Your task to perform on an android device: Go to display settings Image 0: 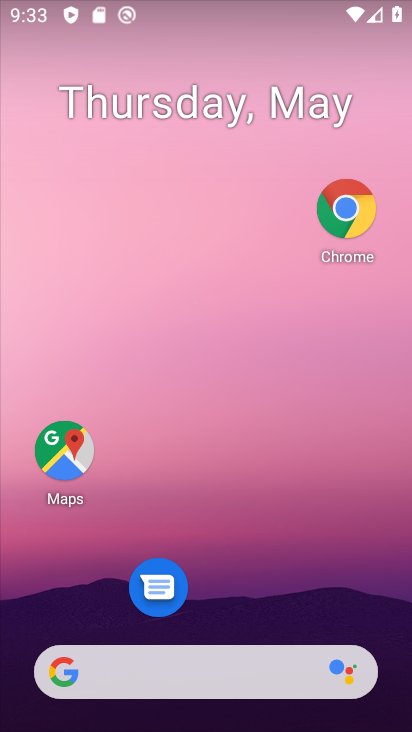
Step 0: drag from (233, 598) to (264, 45)
Your task to perform on an android device: Go to display settings Image 1: 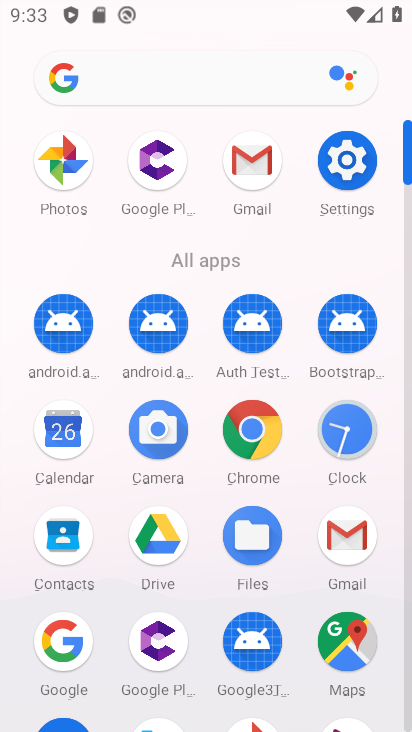
Step 1: click (351, 183)
Your task to perform on an android device: Go to display settings Image 2: 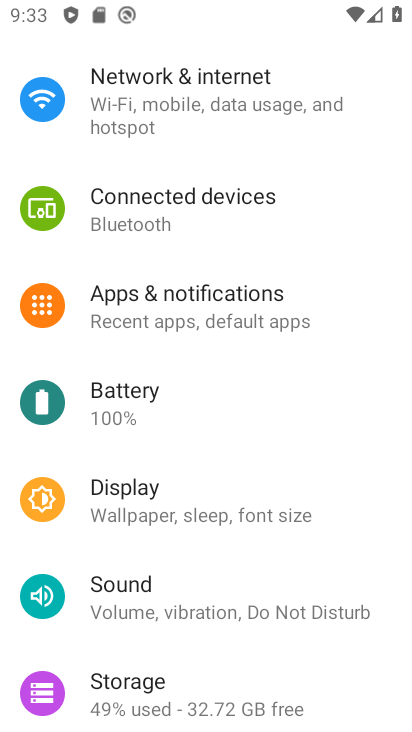
Step 2: click (147, 506)
Your task to perform on an android device: Go to display settings Image 3: 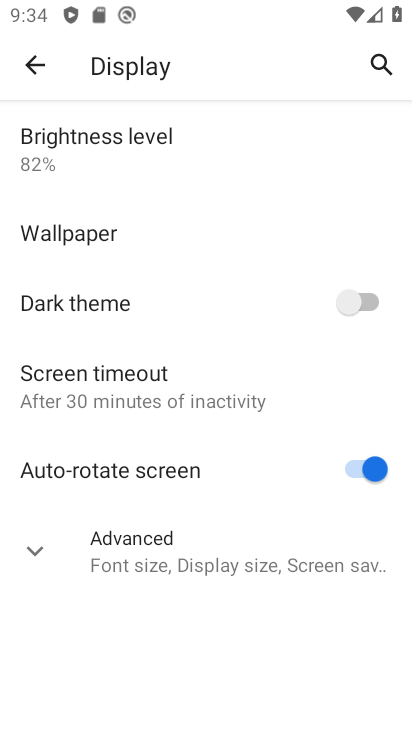
Step 3: task complete